Your task to perform on an android device: turn off location Image 0: 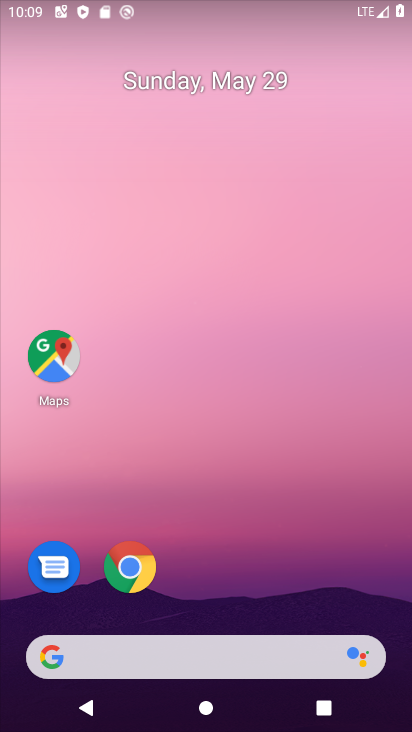
Step 0: drag from (381, 615) to (347, 131)
Your task to perform on an android device: turn off location Image 1: 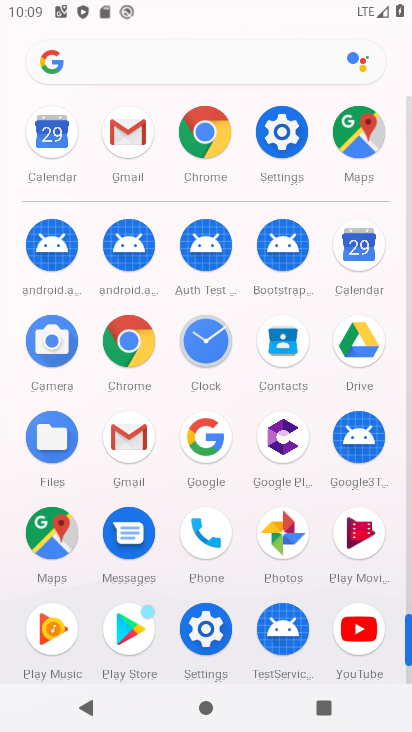
Step 1: click (205, 626)
Your task to perform on an android device: turn off location Image 2: 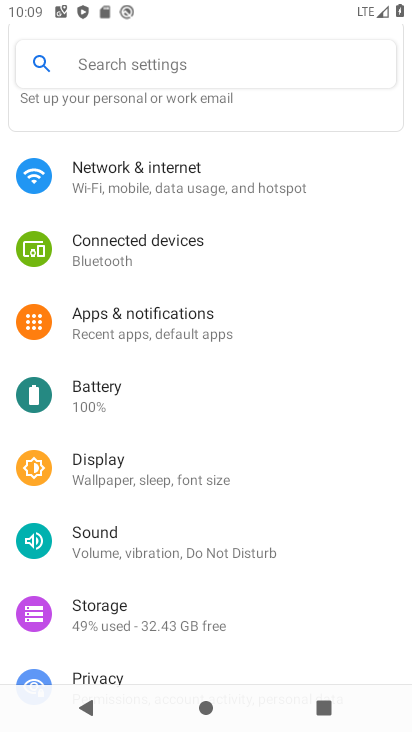
Step 2: drag from (276, 646) to (286, 157)
Your task to perform on an android device: turn off location Image 3: 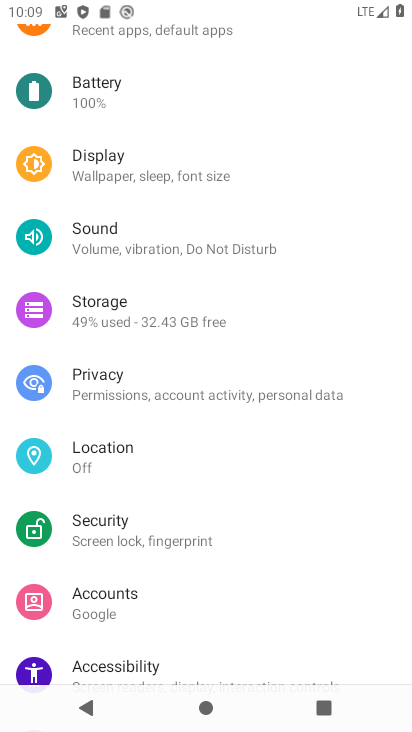
Step 3: click (88, 449)
Your task to perform on an android device: turn off location Image 4: 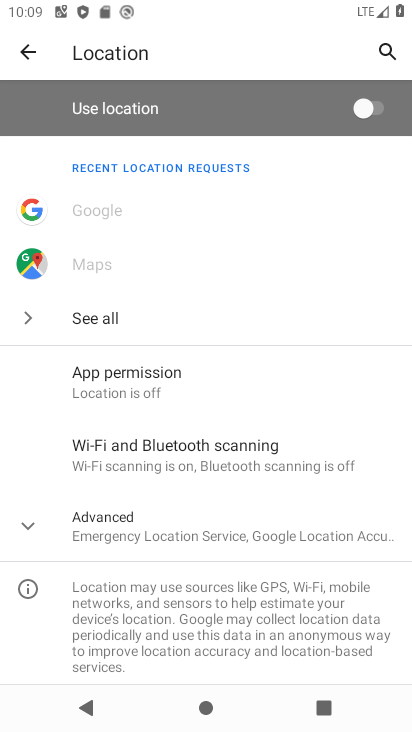
Step 4: task complete